Your task to perform on an android device: Go to CNN.com Image 0: 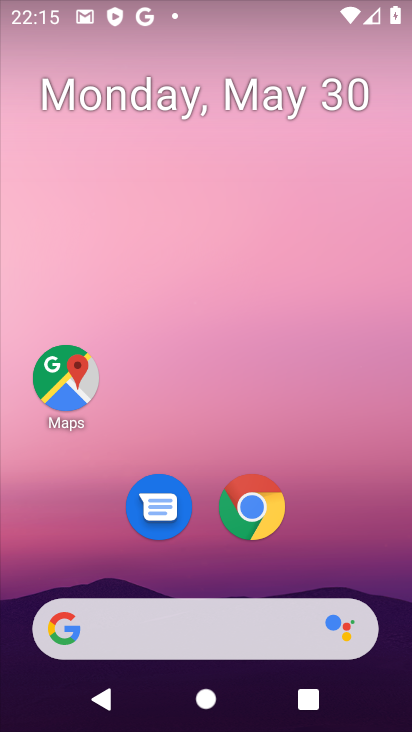
Step 0: drag from (354, 562) to (347, 128)
Your task to perform on an android device: Go to CNN.com Image 1: 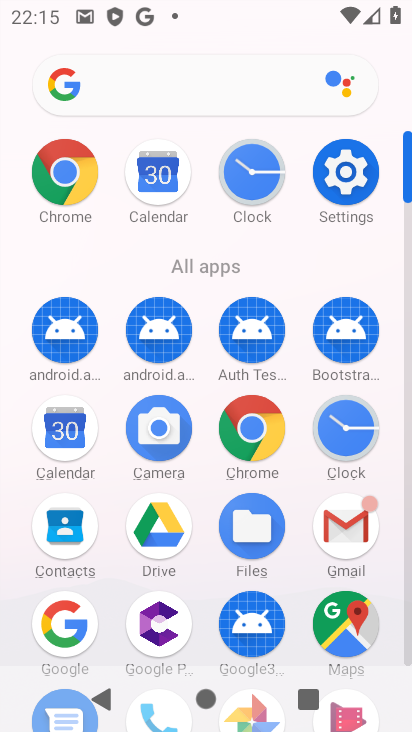
Step 1: click (261, 441)
Your task to perform on an android device: Go to CNN.com Image 2: 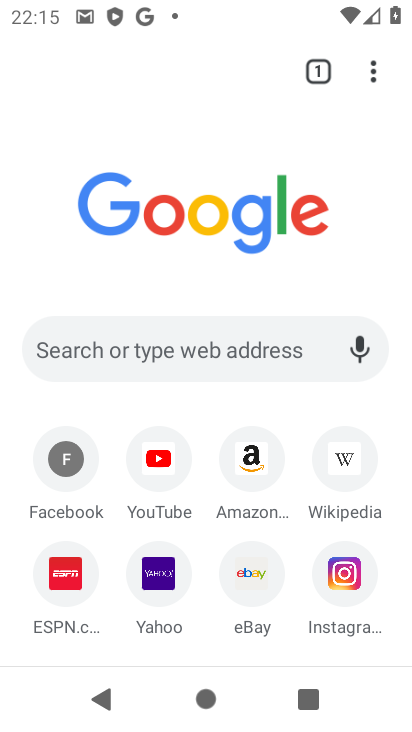
Step 2: click (219, 356)
Your task to perform on an android device: Go to CNN.com Image 3: 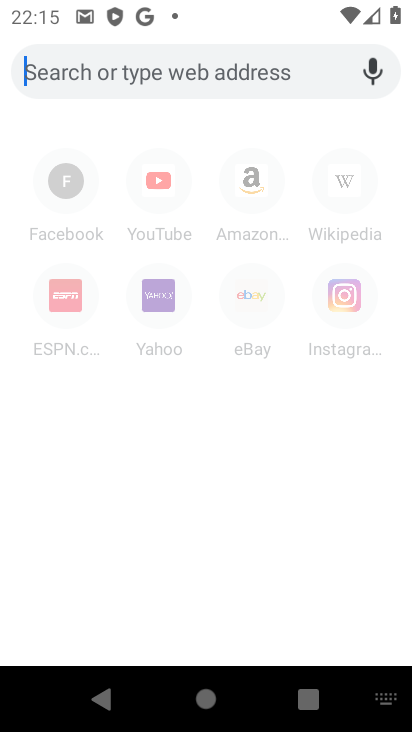
Step 3: type "cnn.com"
Your task to perform on an android device: Go to CNN.com Image 4: 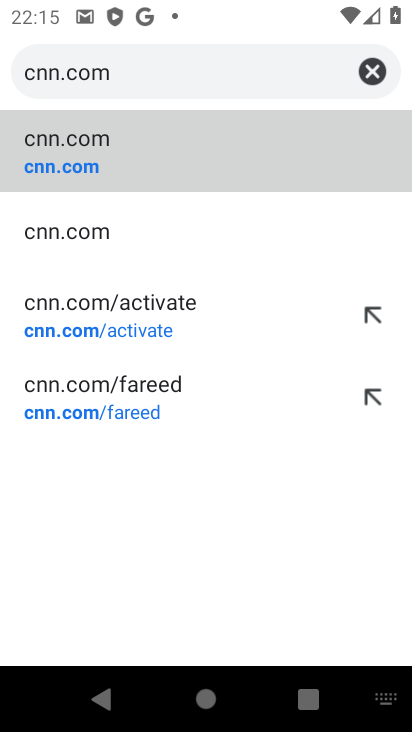
Step 4: click (228, 153)
Your task to perform on an android device: Go to CNN.com Image 5: 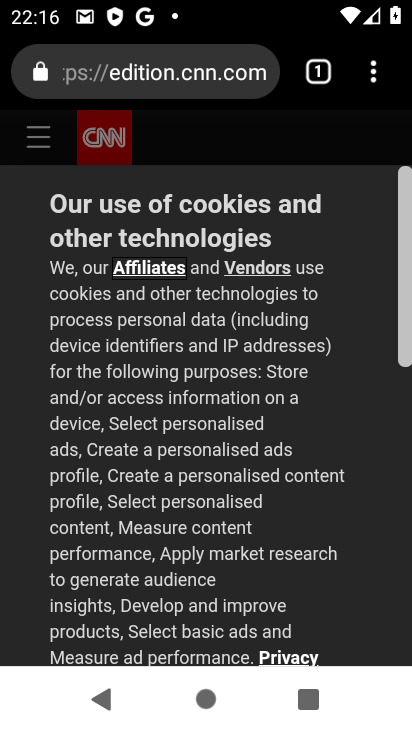
Step 5: task complete